Your task to perform on an android device: set an alarm Image 0: 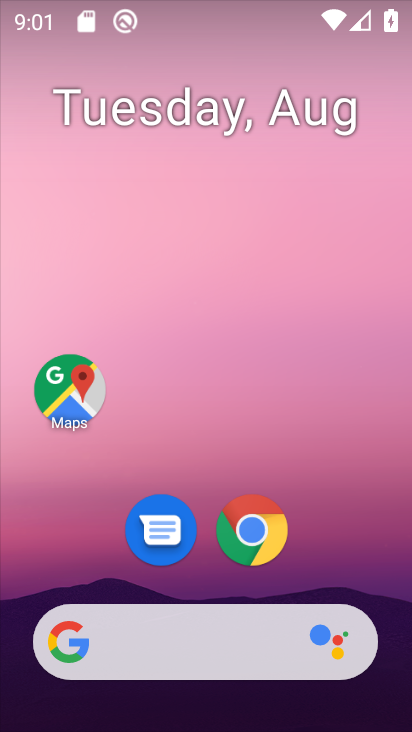
Step 0: drag from (326, 511) to (233, 120)
Your task to perform on an android device: set an alarm Image 1: 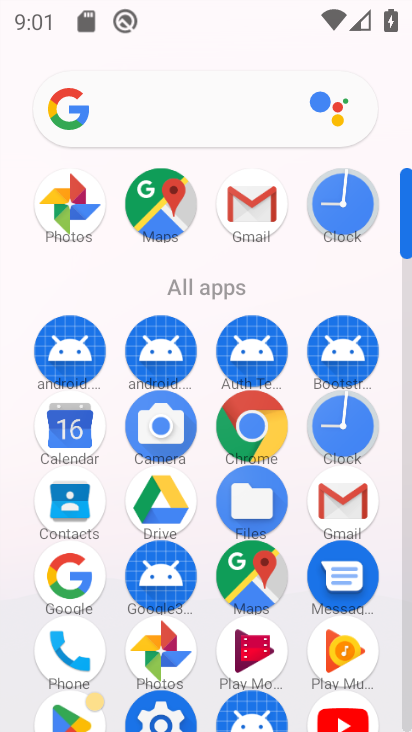
Step 1: click (357, 427)
Your task to perform on an android device: set an alarm Image 2: 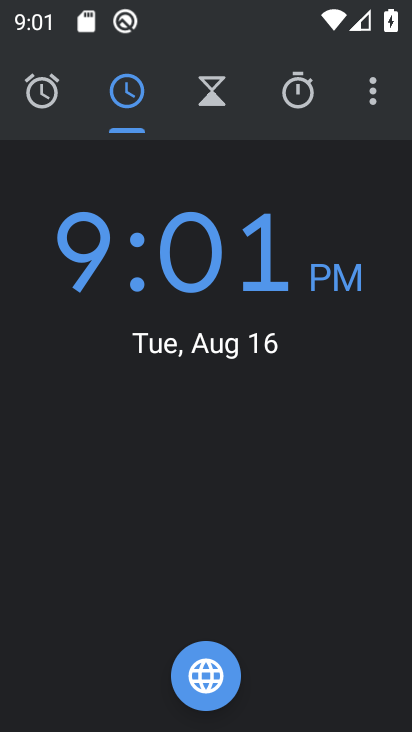
Step 2: click (51, 118)
Your task to perform on an android device: set an alarm Image 3: 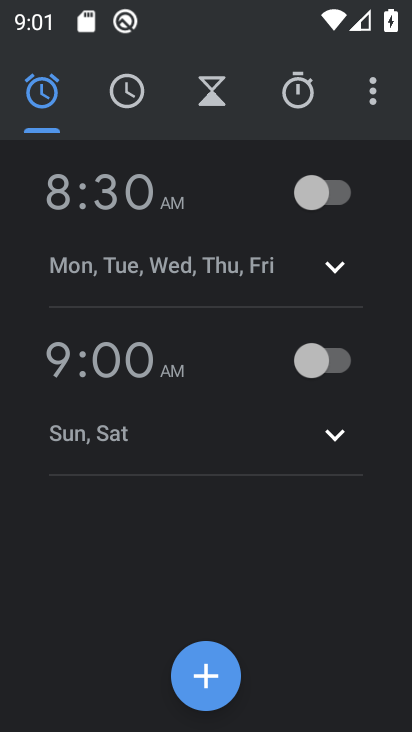
Step 3: click (201, 676)
Your task to perform on an android device: set an alarm Image 4: 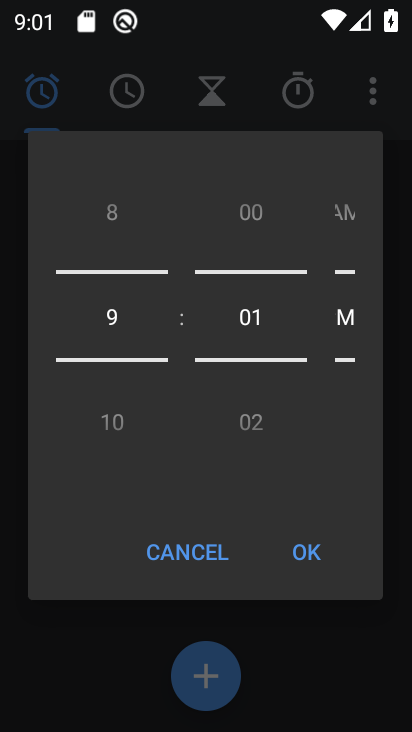
Step 4: click (303, 547)
Your task to perform on an android device: set an alarm Image 5: 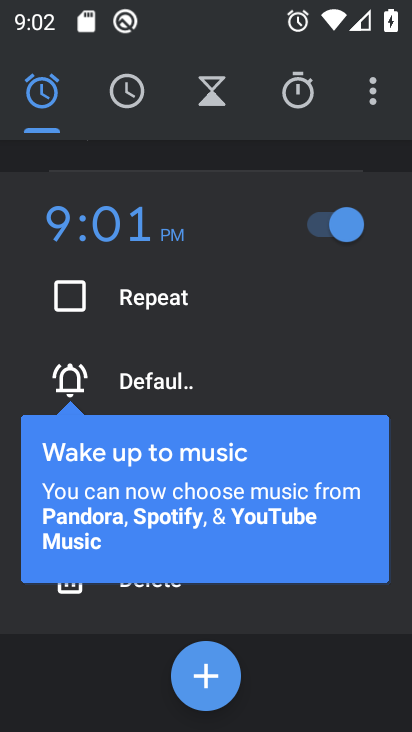
Step 5: task complete